Your task to perform on an android device: Go to ESPN.com Image 0: 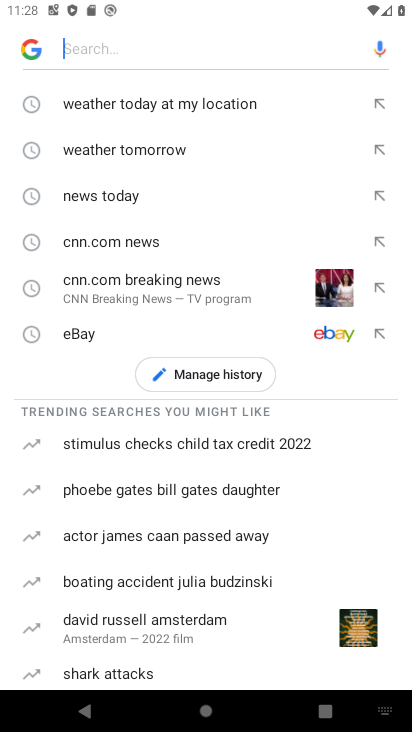
Step 0: type "espn.com"
Your task to perform on an android device: Go to ESPN.com Image 1: 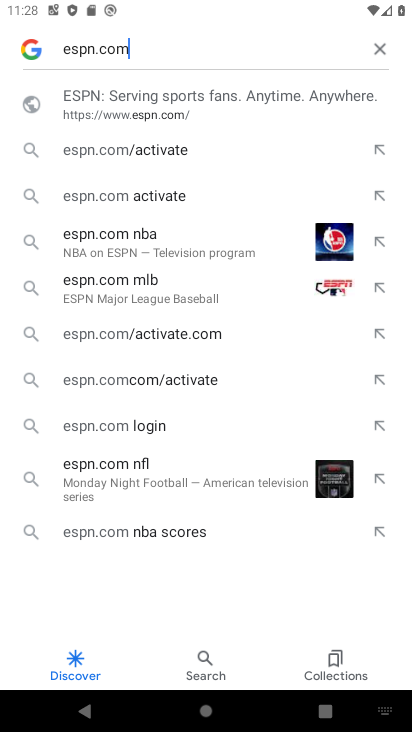
Step 1: click (108, 96)
Your task to perform on an android device: Go to ESPN.com Image 2: 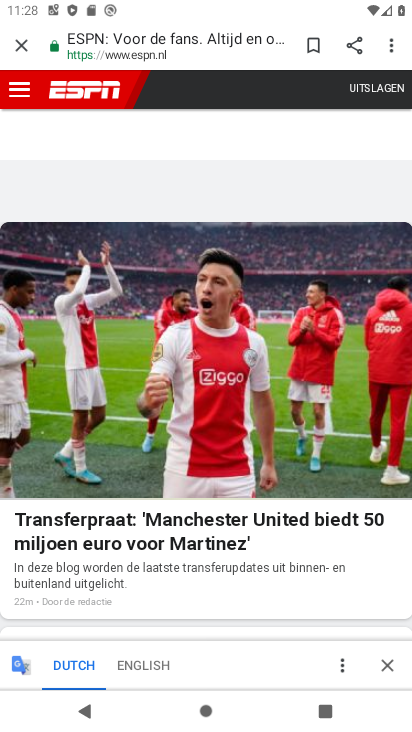
Step 2: task complete